Your task to perform on an android device: What's on my calendar tomorrow? Image 0: 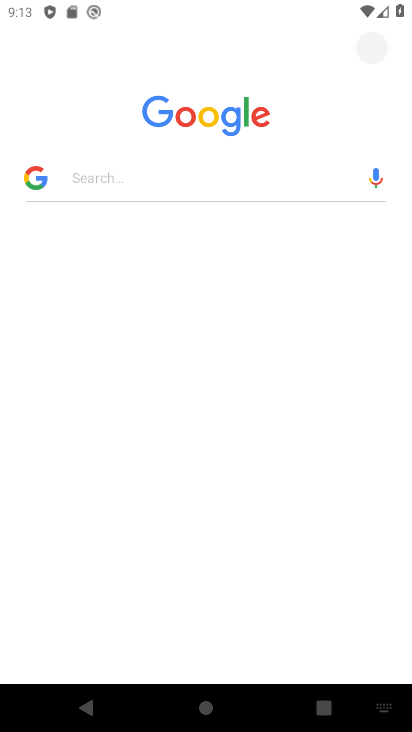
Step 0: press home button
Your task to perform on an android device: What's on my calendar tomorrow? Image 1: 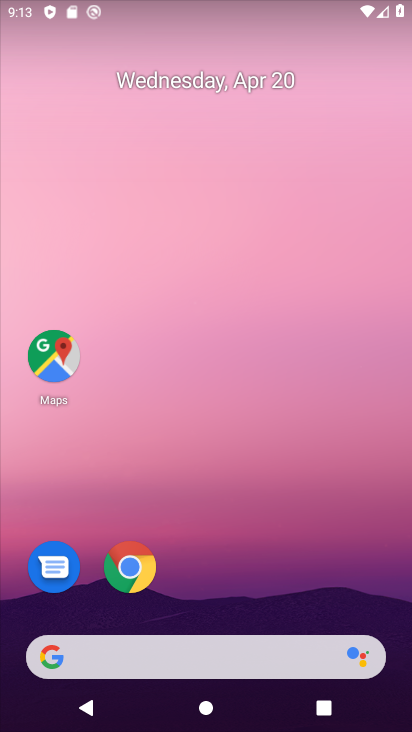
Step 1: click (241, 302)
Your task to perform on an android device: What's on my calendar tomorrow? Image 2: 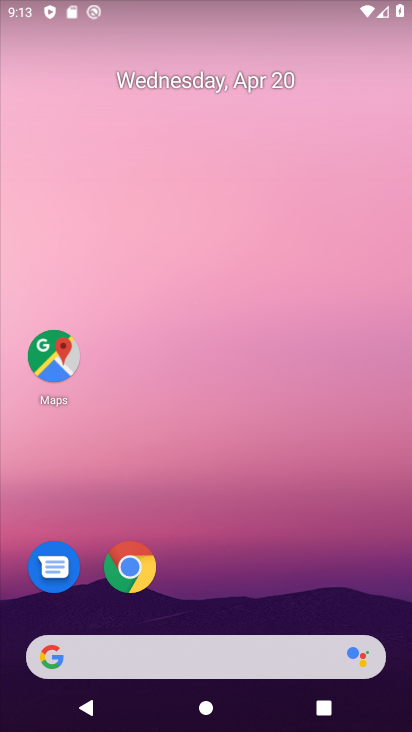
Step 2: drag from (238, 630) to (251, 313)
Your task to perform on an android device: What's on my calendar tomorrow? Image 3: 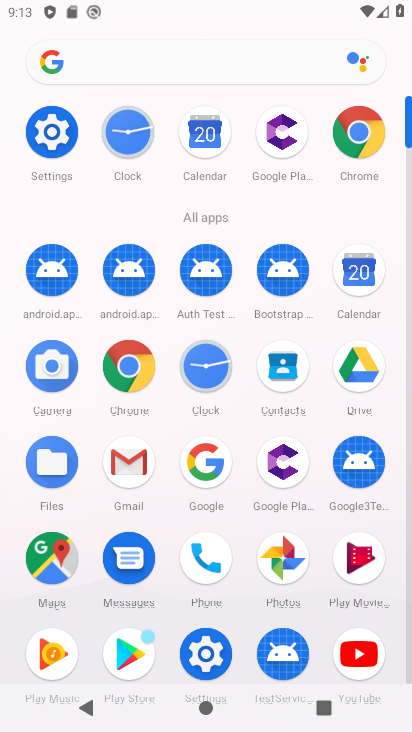
Step 3: click (364, 266)
Your task to perform on an android device: What's on my calendar tomorrow? Image 4: 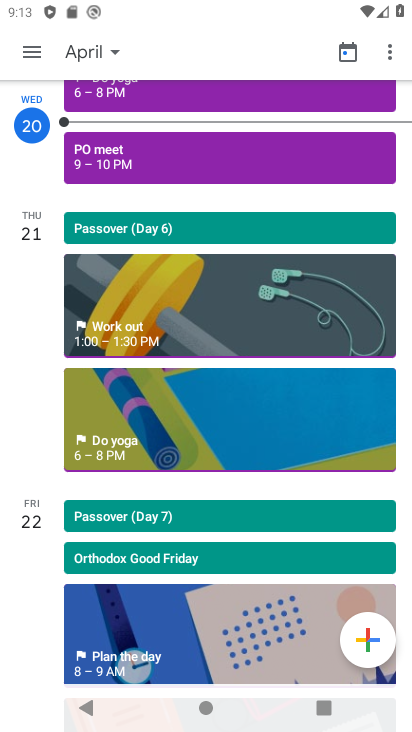
Step 4: click (33, 57)
Your task to perform on an android device: What's on my calendar tomorrow? Image 5: 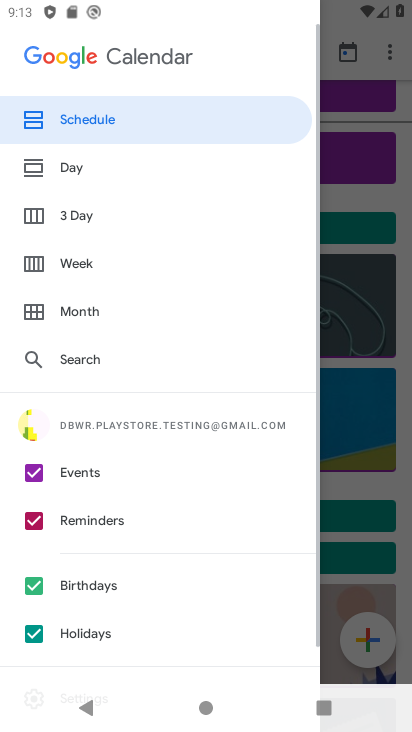
Step 5: click (33, 57)
Your task to perform on an android device: What's on my calendar tomorrow? Image 6: 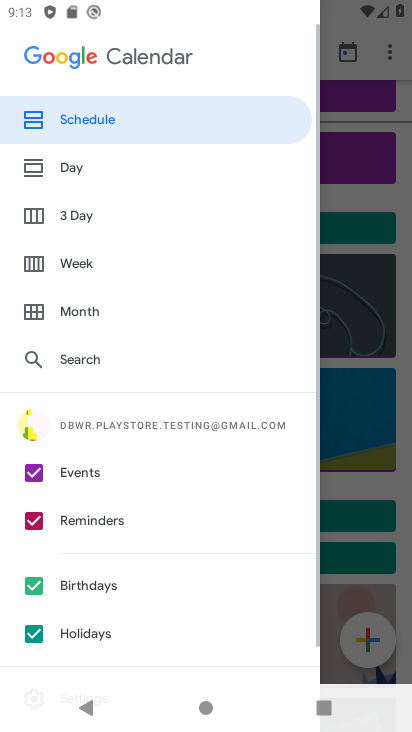
Step 6: click (96, 306)
Your task to perform on an android device: What's on my calendar tomorrow? Image 7: 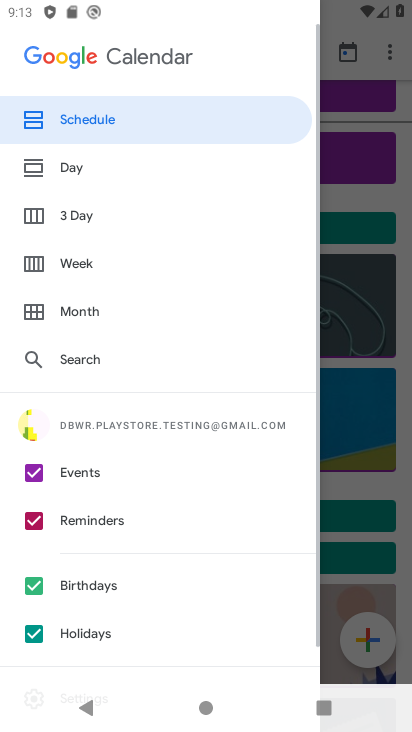
Step 7: click (96, 306)
Your task to perform on an android device: What's on my calendar tomorrow? Image 8: 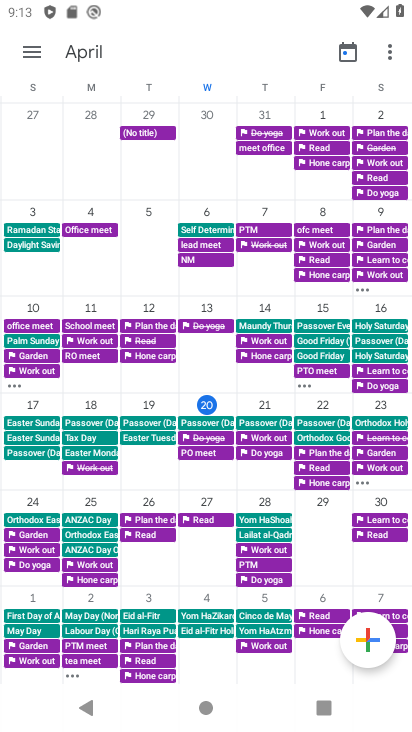
Step 8: click (265, 405)
Your task to perform on an android device: What's on my calendar tomorrow? Image 9: 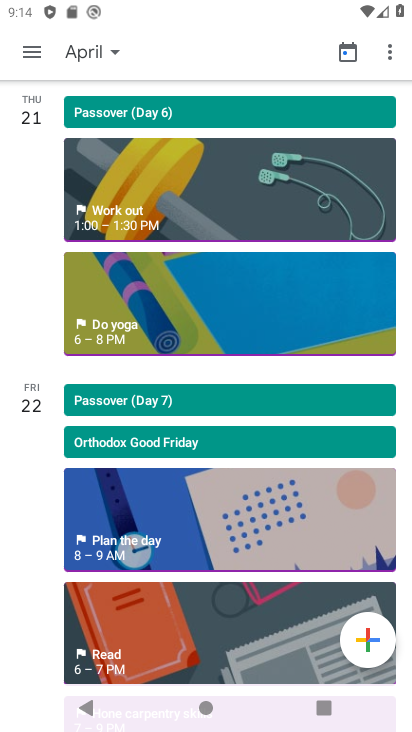
Step 9: task complete